Your task to perform on an android device: turn on data saver in the chrome app Image 0: 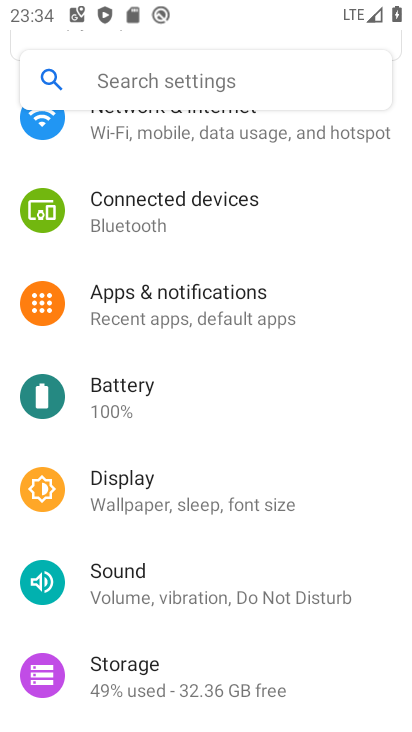
Step 0: press home button
Your task to perform on an android device: turn on data saver in the chrome app Image 1: 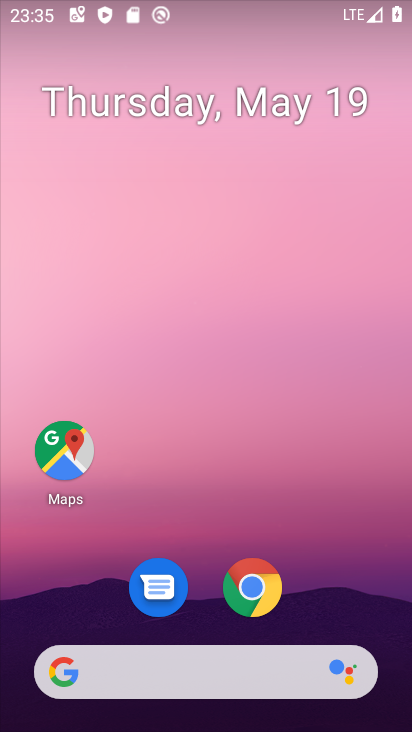
Step 1: drag from (242, 702) to (207, 122)
Your task to perform on an android device: turn on data saver in the chrome app Image 2: 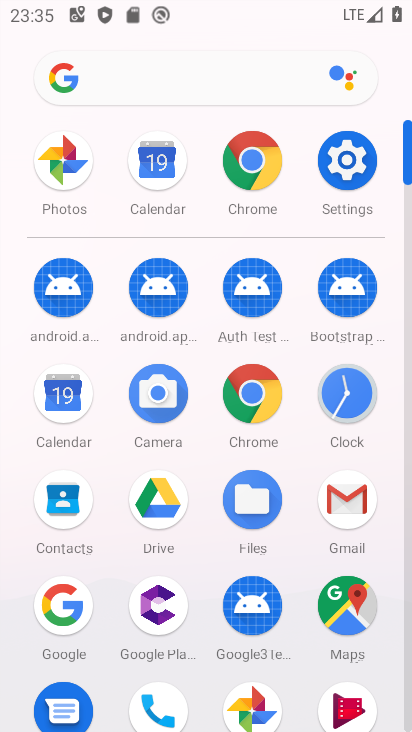
Step 2: click (259, 410)
Your task to perform on an android device: turn on data saver in the chrome app Image 3: 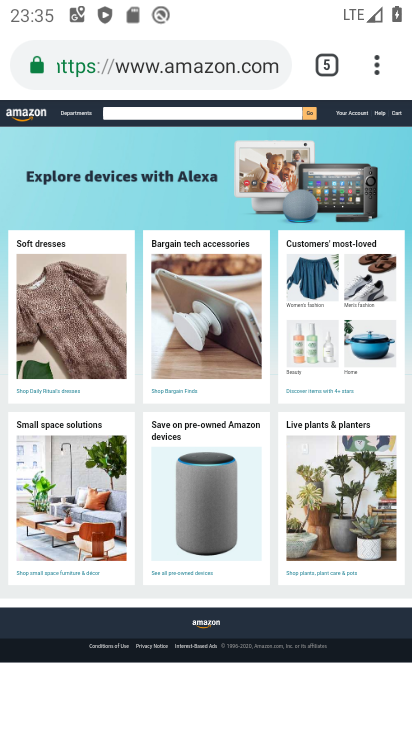
Step 3: click (377, 62)
Your task to perform on an android device: turn on data saver in the chrome app Image 4: 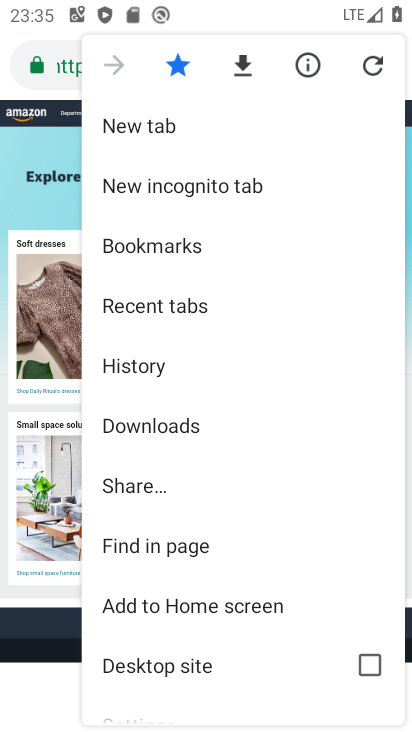
Step 4: drag from (161, 640) to (211, 454)
Your task to perform on an android device: turn on data saver in the chrome app Image 5: 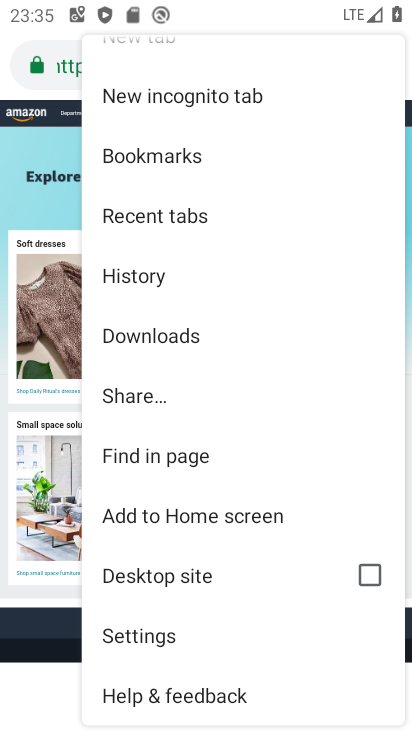
Step 5: click (150, 644)
Your task to perform on an android device: turn on data saver in the chrome app Image 6: 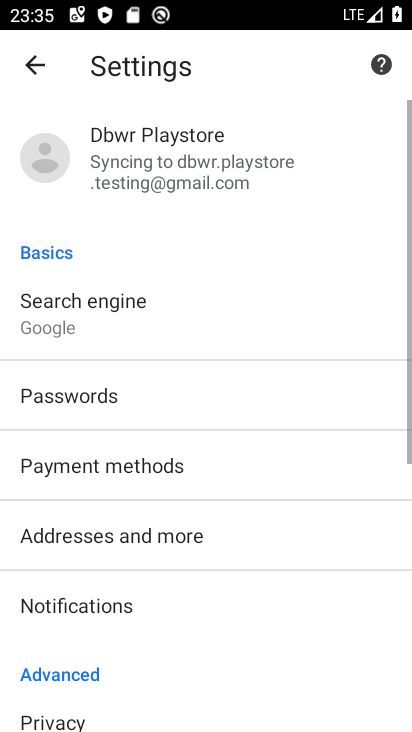
Step 6: drag from (150, 637) to (163, 337)
Your task to perform on an android device: turn on data saver in the chrome app Image 7: 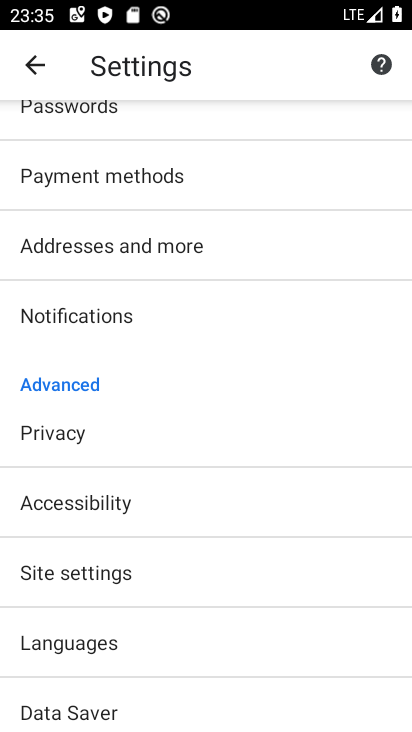
Step 7: click (97, 709)
Your task to perform on an android device: turn on data saver in the chrome app Image 8: 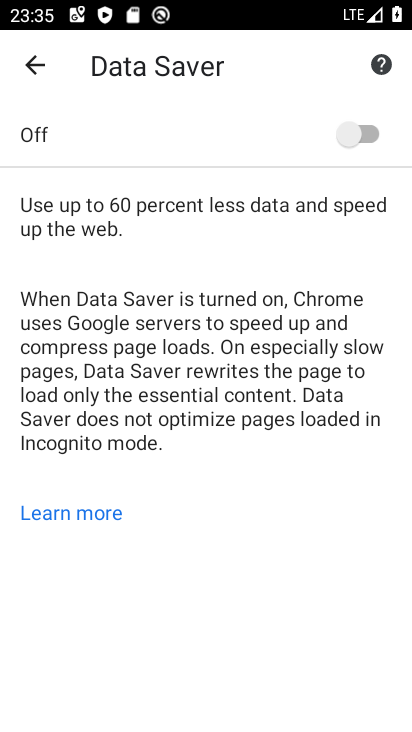
Step 8: click (367, 126)
Your task to perform on an android device: turn on data saver in the chrome app Image 9: 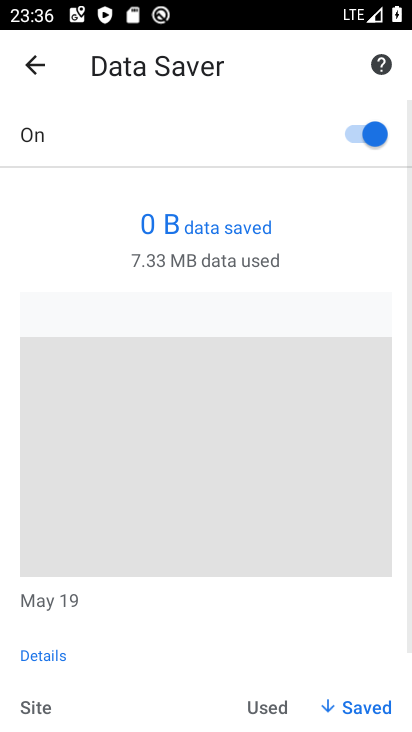
Step 9: task complete